Your task to perform on an android device: check data usage Image 0: 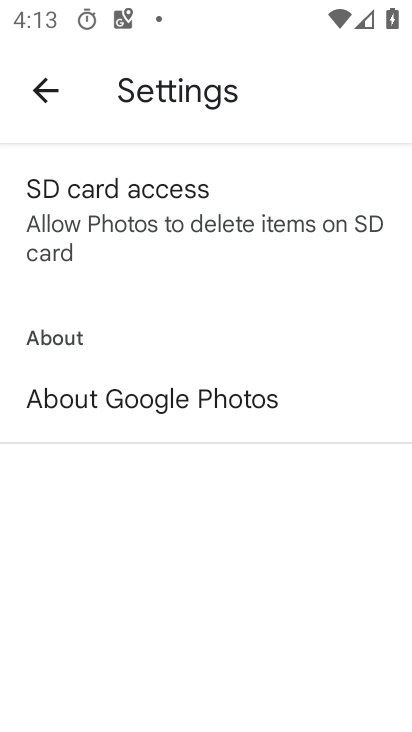
Step 0: press home button
Your task to perform on an android device: check data usage Image 1: 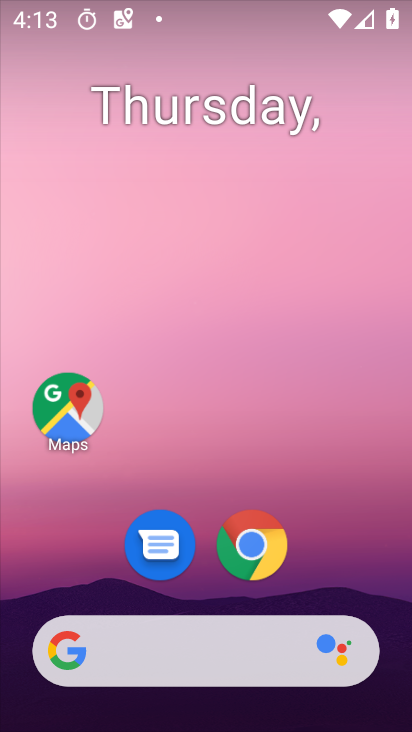
Step 1: drag from (184, 726) to (242, 144)
Your task to perform on an android device: check data usage Image 2: 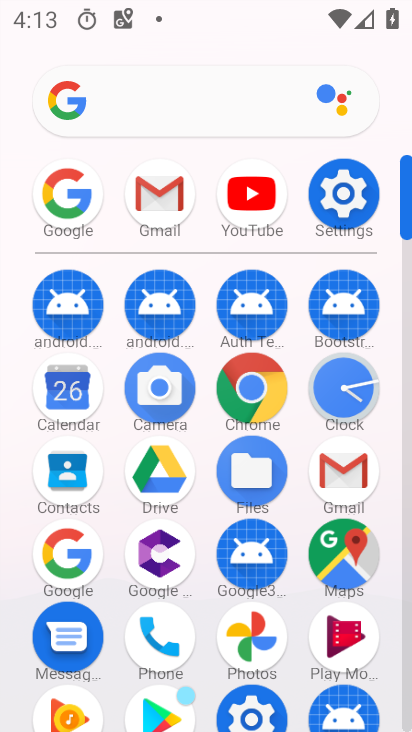
Step 2: click (345, 198)
Your task to perform on an android device: check data usage Image 3: 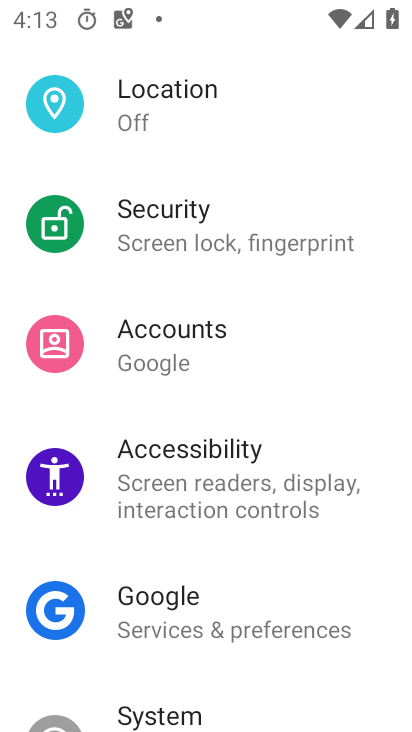
Step 3: drag from (233, 143) to (260, 506)
Your task to perform on an android device: check data usage Image 4: 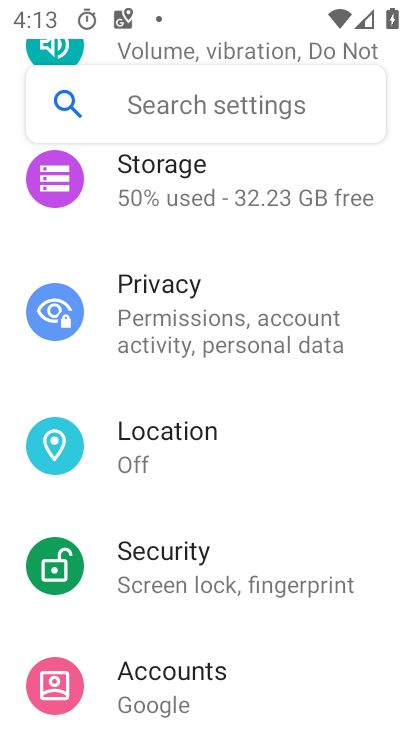
Step 4: drag from (257, 159) to (288, 575)
Your task to perform on an android device: check data usage Image 5: 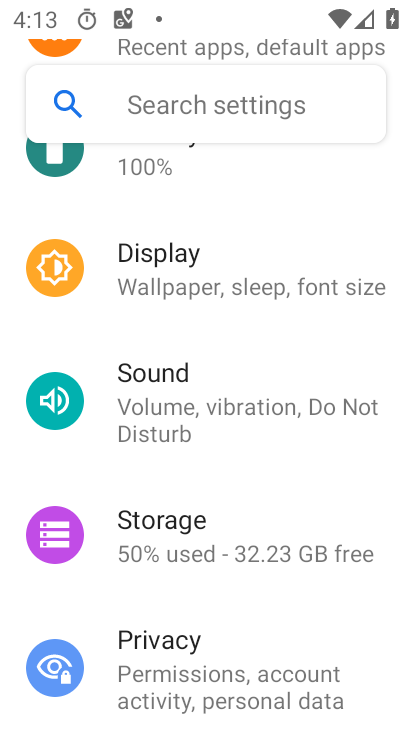
Step 5: drag from (249, 214) to (269, 578)
Your task to perform on an android device: check data usage Image 6: 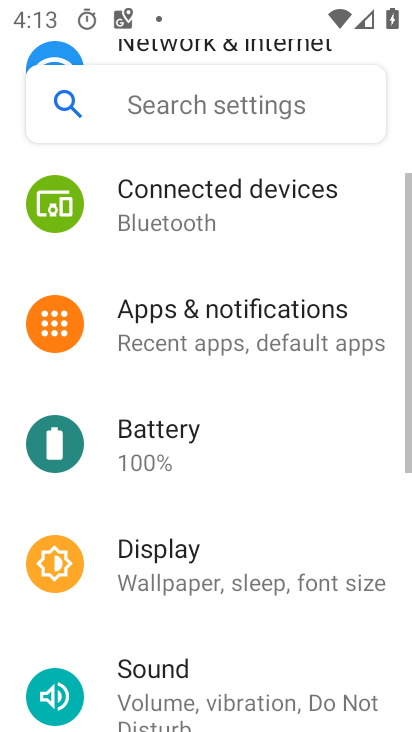
Step 6: drag from (260, 190) to (291, 644)
Your task to perform on an android device: check data usage Image 7: 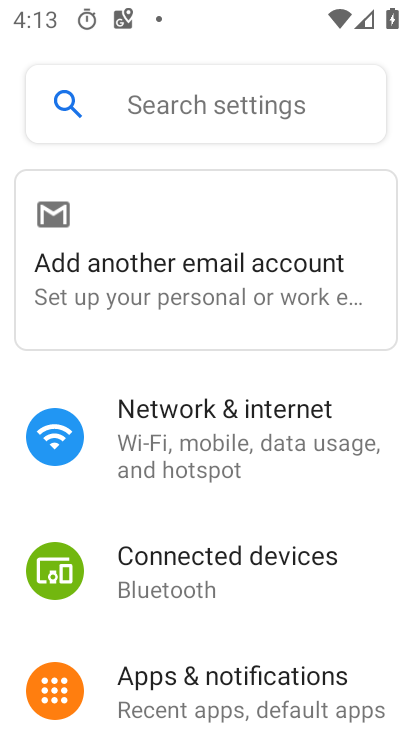
Step 7: click (211, 427)
Your task to perform on an android device: check data usage Image 8: 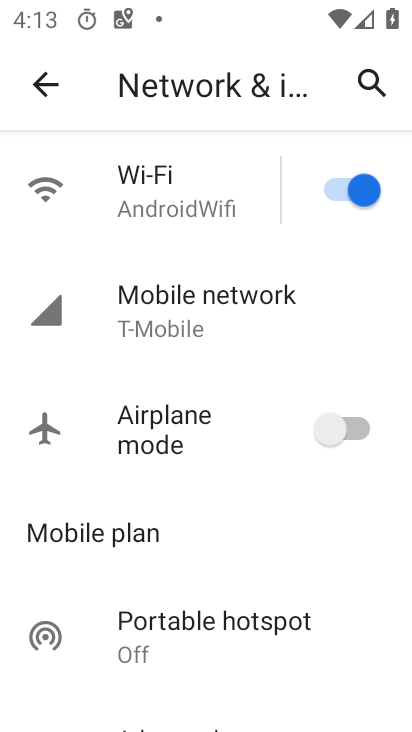
Step 8: click (192, 308)
Your task to perform on an android device: check data usage Image 9: 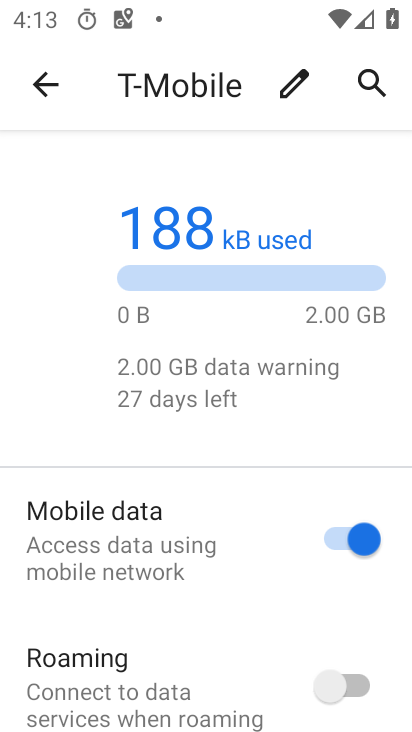
Step 9: drag from (169, 712) to (169, 656)
Your task to perform on an android device: check data usage Image 10: 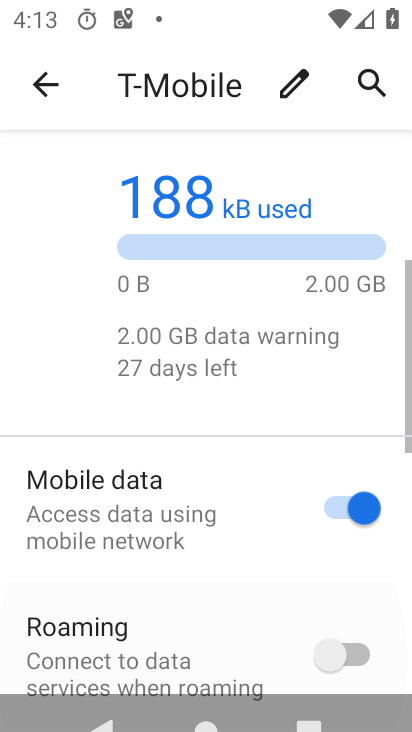
Step 10: drag from (170, 317) to (170, 174)
Your task to perform on an android device: check data usage Image 11: 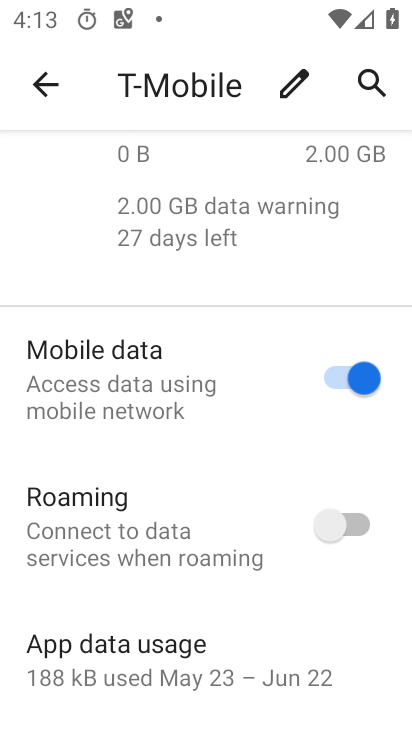
Step 11: click (119, 650)
Your task to perform on an android device: check data usage Image 12: 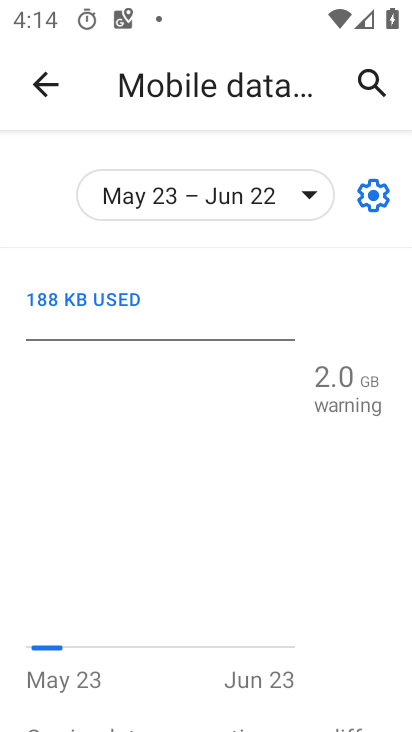
Step 12: task complete